Your task to perform on an android device: What is the recent news? Image 0: 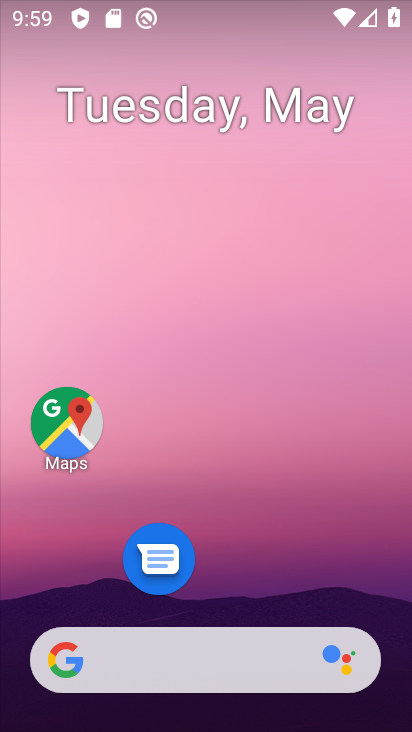
Step 0: drag from (297, 701) to (238, 178)
Your task to perform on an android device: What is the recent news? Image 1: 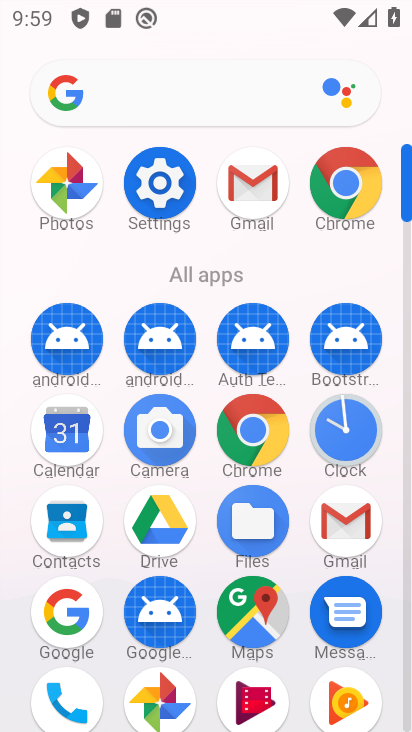
Step 1: press back button
Your task to perform on an android device: What is the recent news? Image 2: 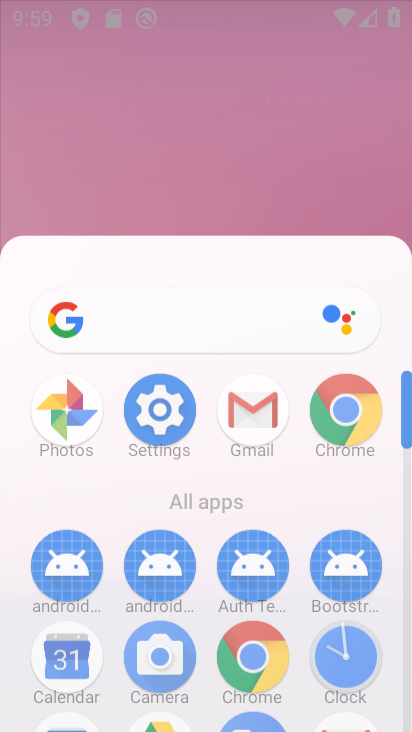
Step 2: press back button
Your task to perform on an android device: What is the recent news? Image 3: 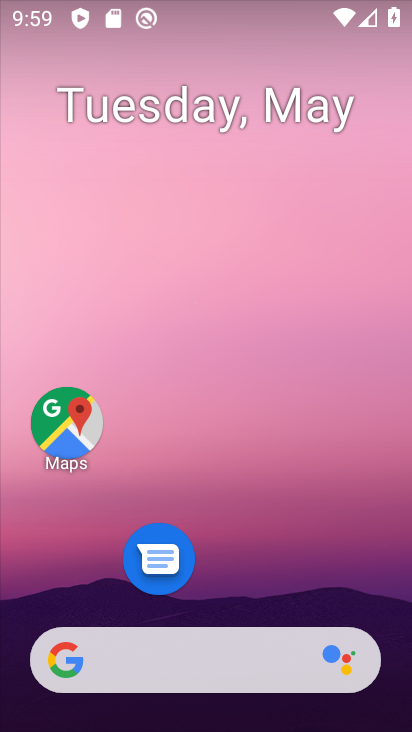
Step 3: drag from (2, 246) to (410, 367)
Your task to perform on an android device: What is the recent news? Image 4: 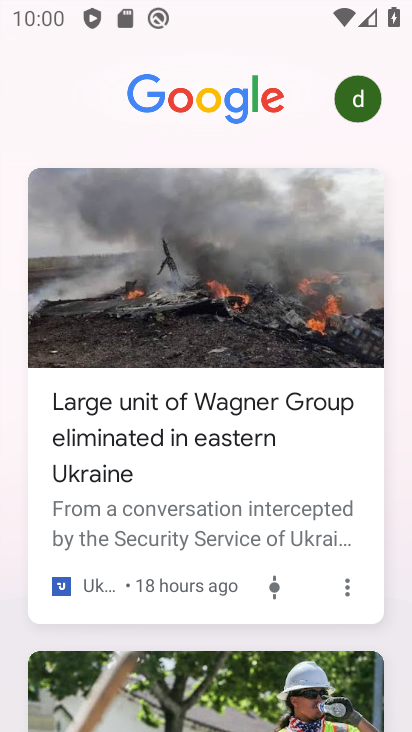
Step 4: drag from (162, 505) to (193, 117)
Your task to perform on an android device: What is the recent news? Image 5: 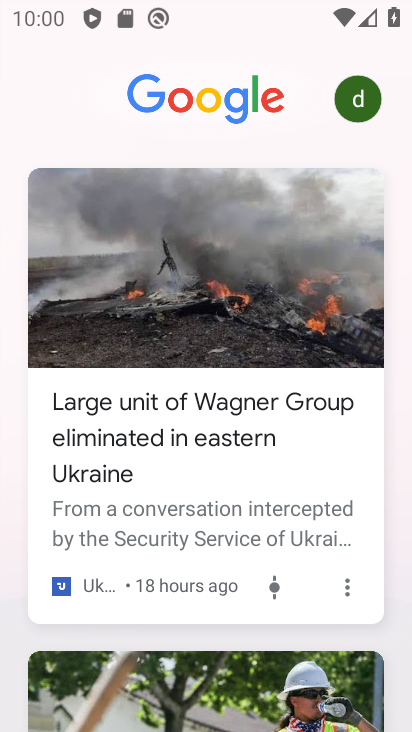
Step 5: drag from (199, 469) to (196, 102)
Your task to perform on an android device: What is the recent news? Image 6: 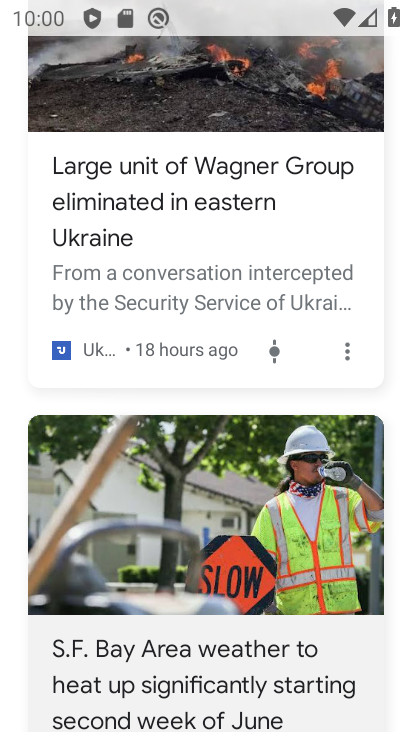
Step 6: drag from (208, 403) to (215, 15)
Your task to perform on an android device: What is the recent news? Image 7: 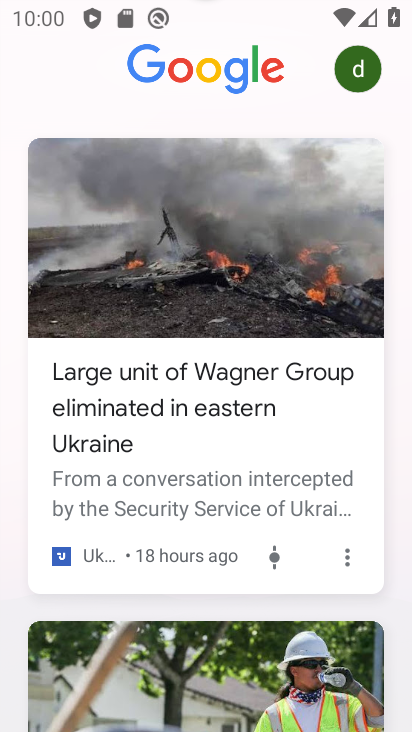
Step 7: click (237, 130)
Your task to perform on an android device: What is the recent news? Image 8: 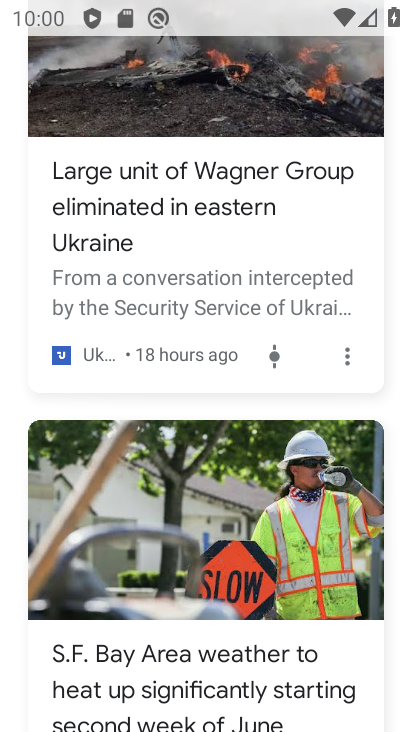
Step 8: task complete